Your task to perform on an android device: empty trash in the gmail app Image 0: 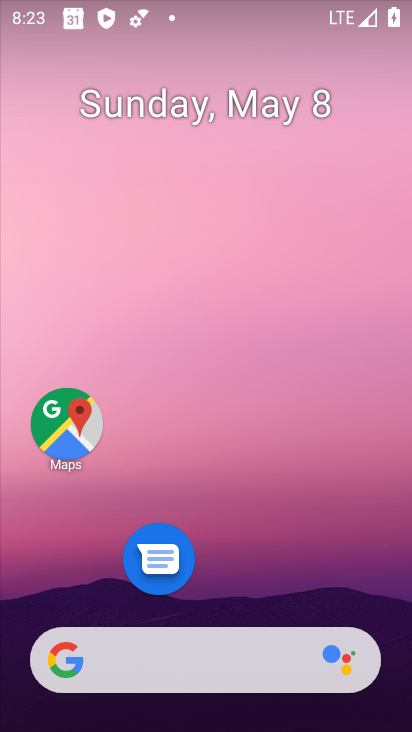
Step 0: drag from (368, 645) to (249, 14)
Your task to perform on an android device: empty trash in the gmail app Image 1: 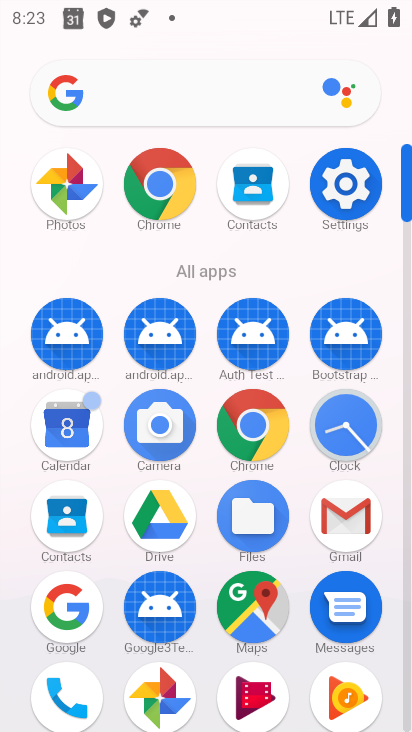
Step 1: click (355, 526)
Your task to perform on an android device: empty trash in the gmail app Image 2: 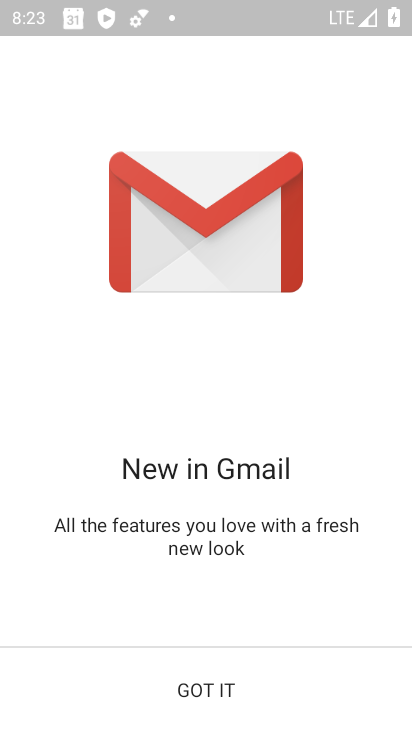
Step 2: click (288, 708)
Your task to perform on an android device: empty trash in the gmail app Image 3: 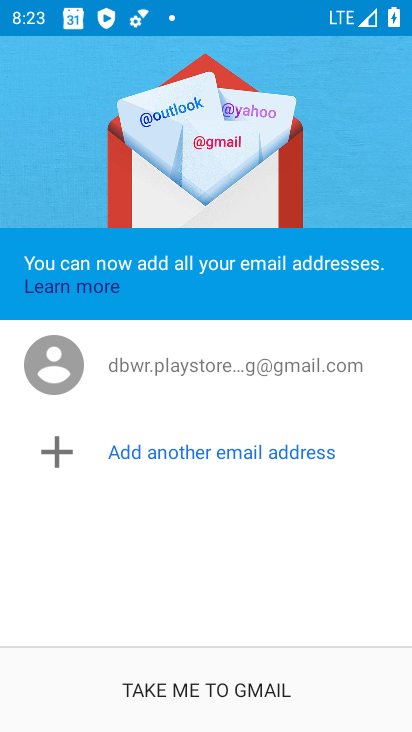
Step 3: click (281, 695)
Your task to perform on an android device: empty trash in the gmail app Image 4: 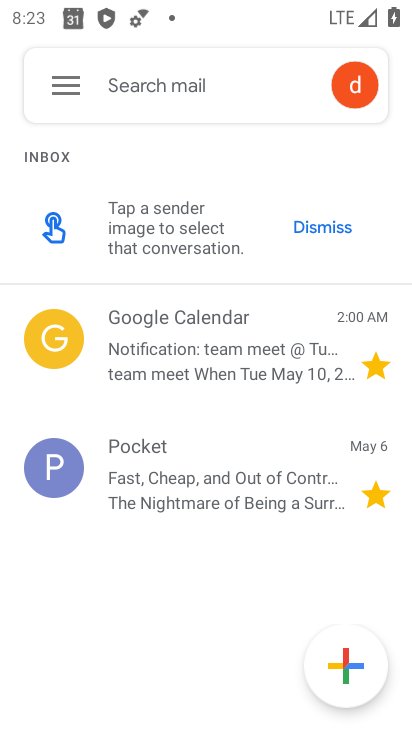
Step 4: click (57, 90)
Your task to perform on an android device: empty trash in the gmail app Image 5: 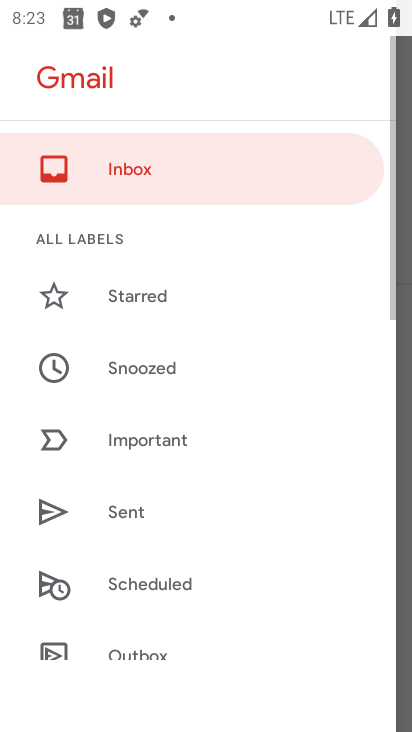
Step 5: drag from (217, 606) to (194, 137)
Your task to perform on an android device: empty trash in the gmail app Image 6: 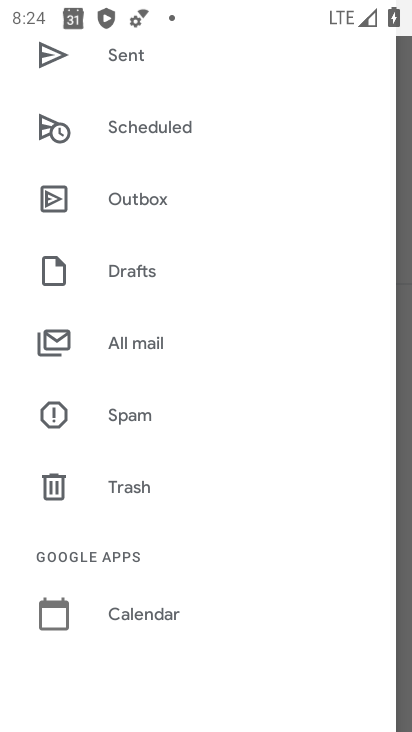
Step 6: click (199, 483)
Your task to perform on an android device: empty trash in the gmail app Image 7: 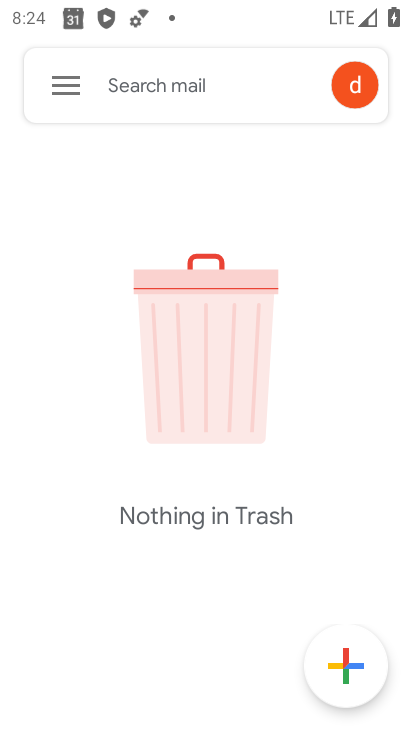
Step 7: task complete